Your task to perform on an android device: What is the news today? Image 0: 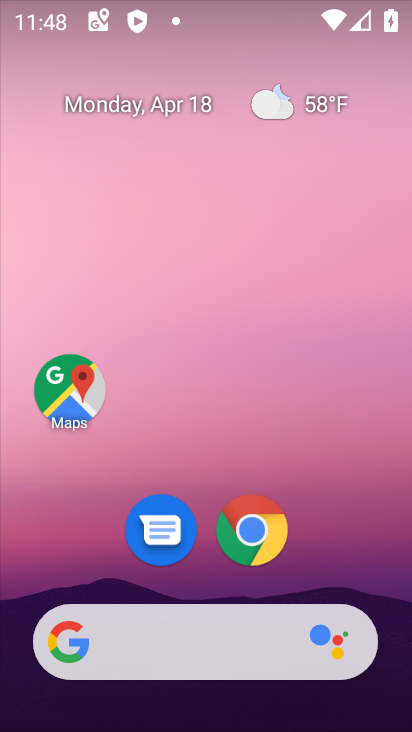
Step 0: click (233, 639)
Your task to perform on an android device: What is the news today? Image 1: 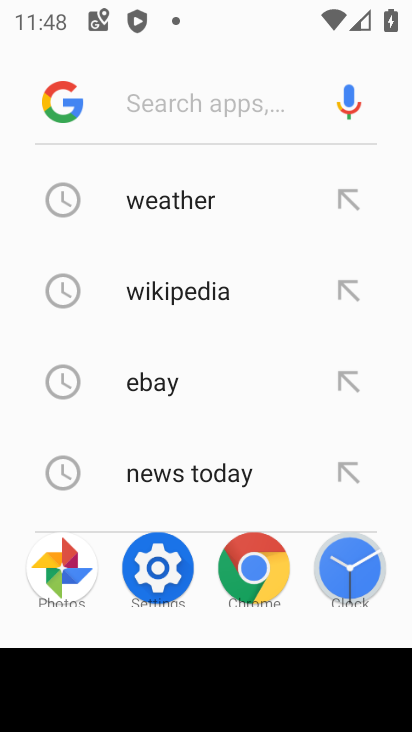
Step 1: type "what is the news today?"
Your task to perform on an android device: What is the news today? Image 2: 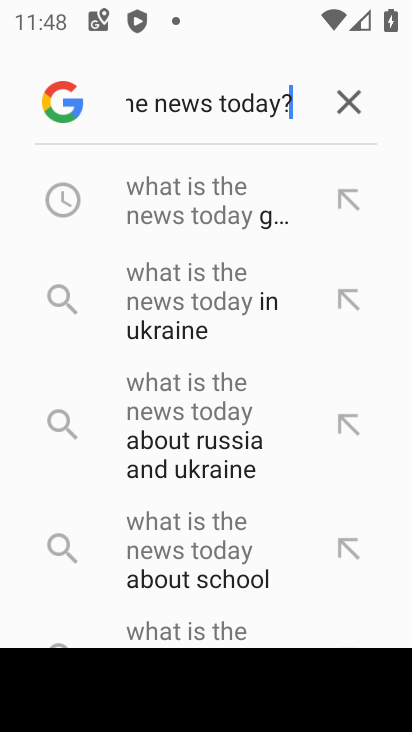
Step 2: click (197, 191)
Your task to perform on an android device: What is the news today? Image 3: 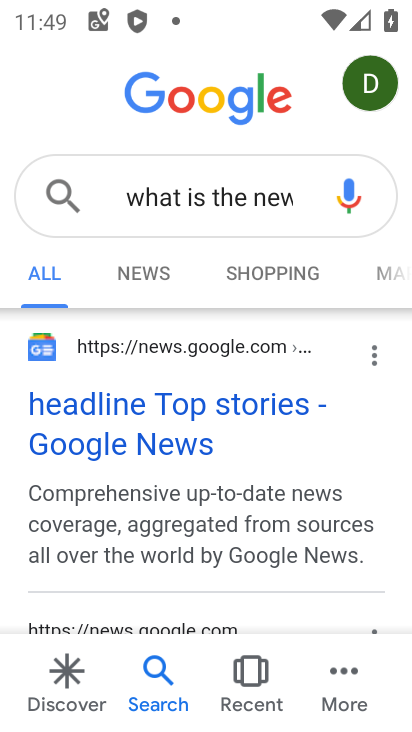
Step 3: click (149, 274)
Your task to perform on an android device: What is the news today? Image 4: 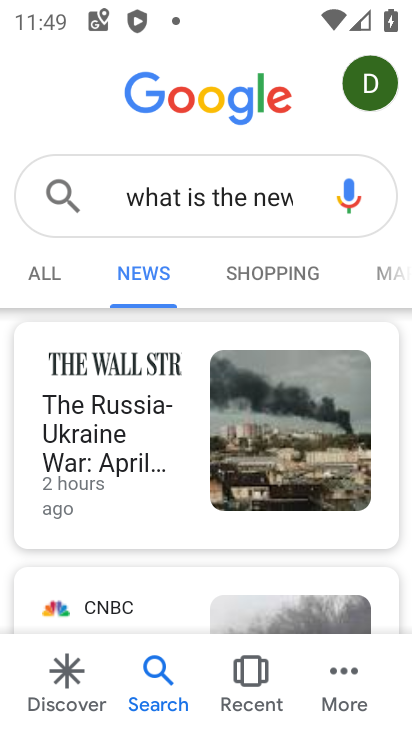
Step 4: task complete